Your task to perform on an android device: Open the calendar and show me this week's events? Image 0: 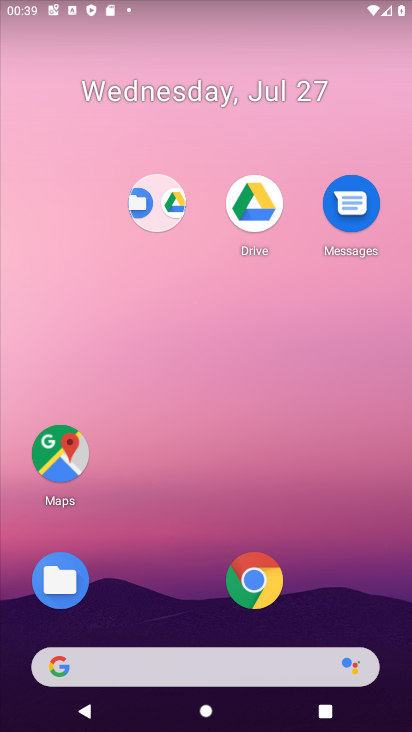
Step 0: click (231, 104)
Your task to perform on an android device: Open the calendar and show me this week's events? Image 1: 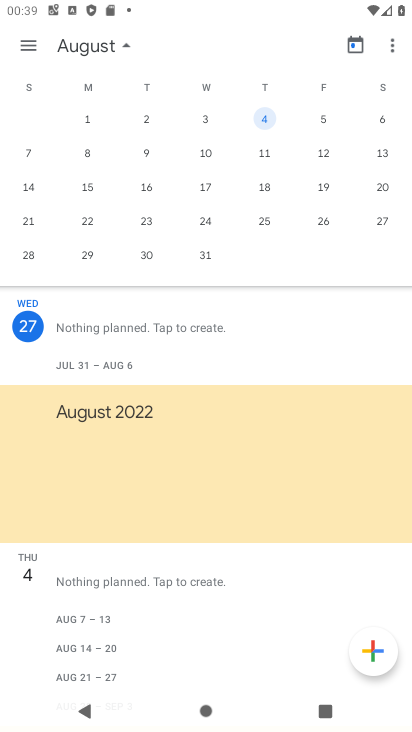
Step 1: task complete